Your task to perform on an android device: change the upload size in google photos Image 0: 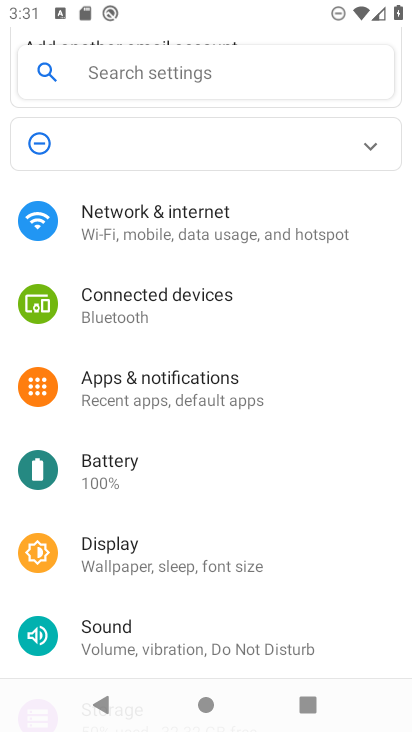
Step 0: press home button
Your task to perform on an android device: change the upload size in google photos Image 1: 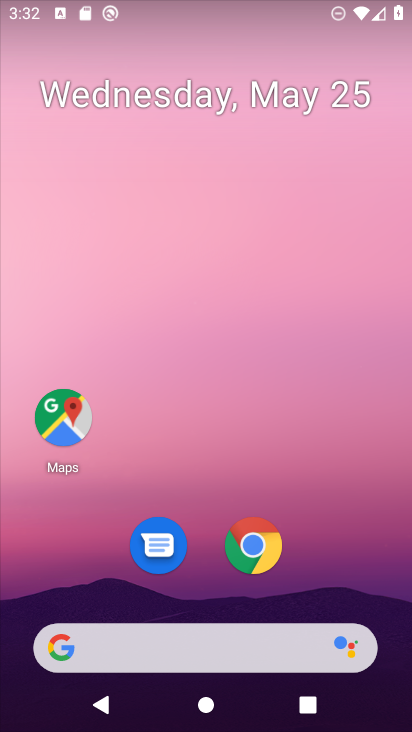
Step 1: drag from (347, 568) to (295, 142)
Your task to perform on an android device: change the upload size in google photos Image 2: 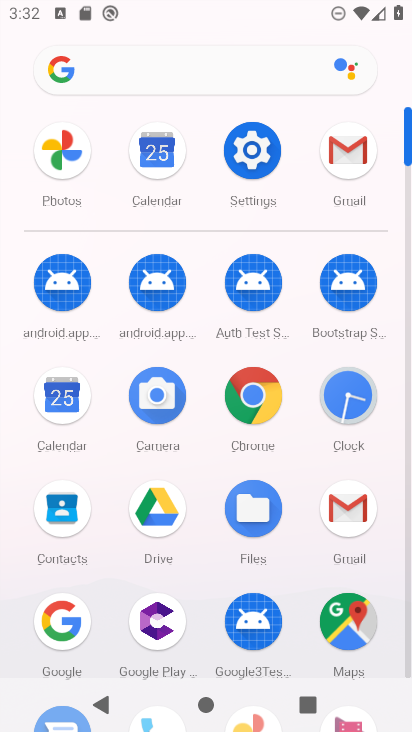
Step 2: click (45, 164)
Your task to perform on an android device: change the upload size in google photos Image 3: 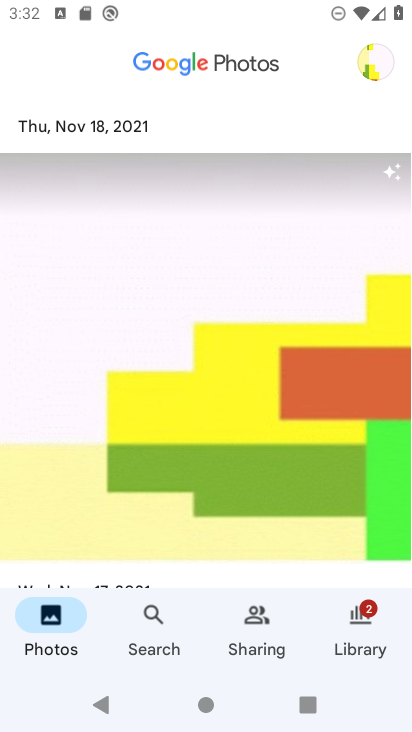
Step 3: task complete